Your task to perform on an android device: Open Yahoo.com Image 0: 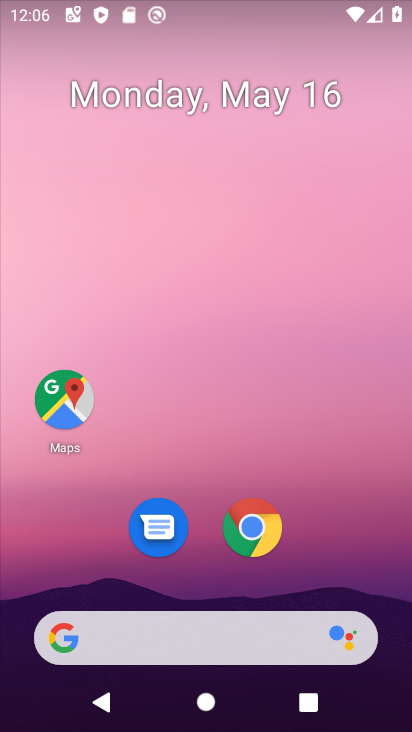
Step 0: click (247, 536)
Your task to perform on an android device: Open Yahoo.com Image 1: 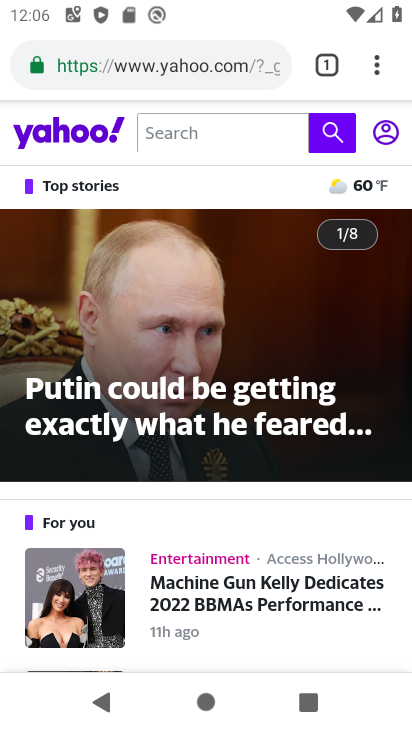
Step 1: task complete